Your task to perform on an android device: Add "razer huntsman" to the cart on ebay Image 0: 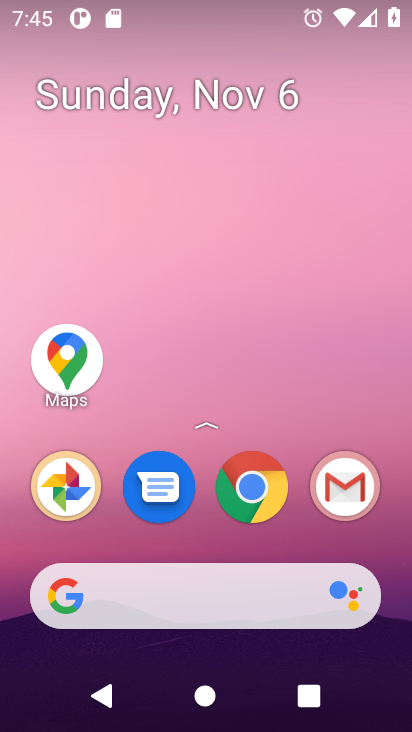
Step 0: click (236, 494)
Your task to perform on an android device: Add "razer huntsman" to the cart on ebay Image 1: 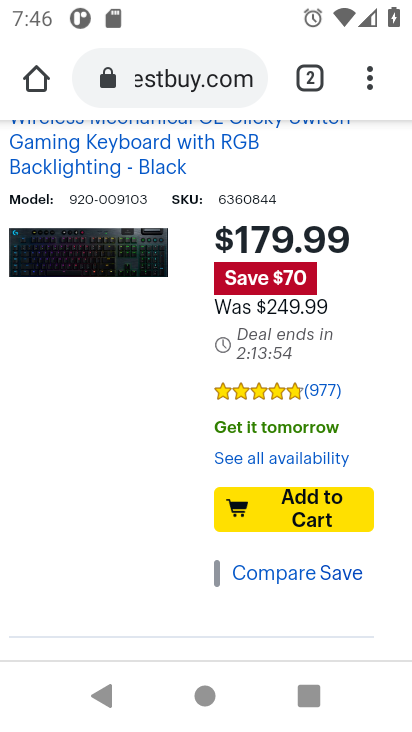
Step 1: click (177, 63)
Your task to perform on an android device: Add "razer huntsman" to the cart on ebay Image 2: 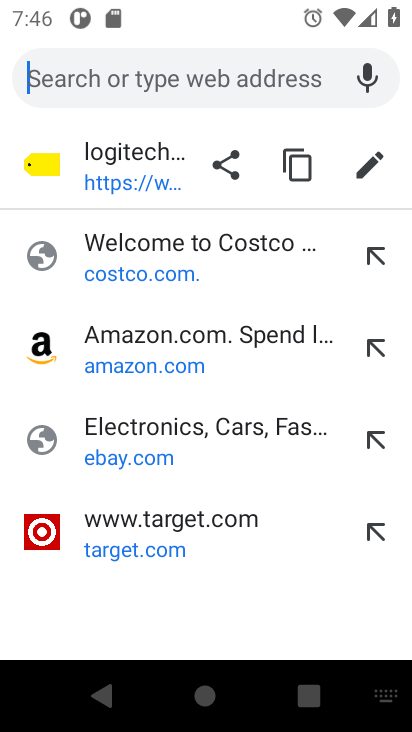
Step 2: type "ebay"
Your task to perform on an android device: Add "razer huntsman" to the cart on ebay Image 3: 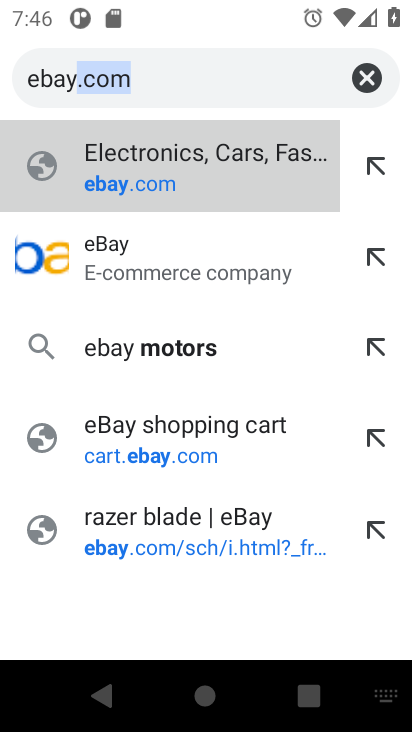
Step 3: click (154, 180)
Your task to perform on an android device: Add "razer huntsman" to the cart on ebay Image 4: 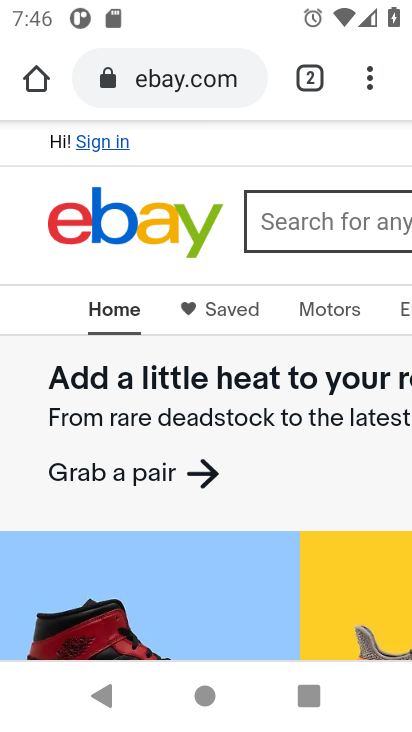
Step 4: click (284, 200)
Your task to perform on an android device: Add "razer huntsman" to the cart on ebay Image 5: 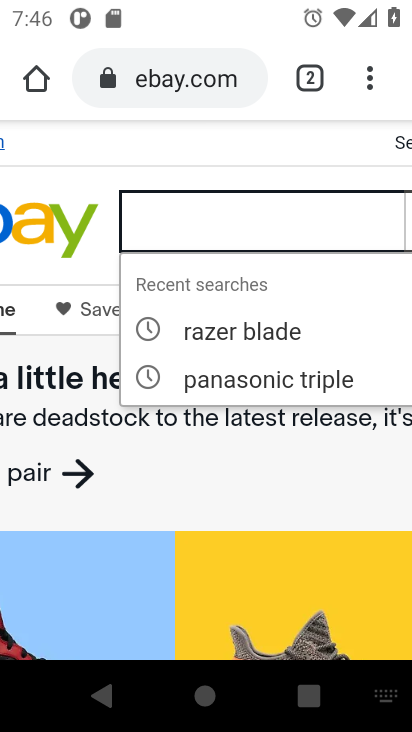
Step 5: type "razer huntsman"
Your task to perform on an android device: Add "razer huntsman" to the cart on ebay Image 6: 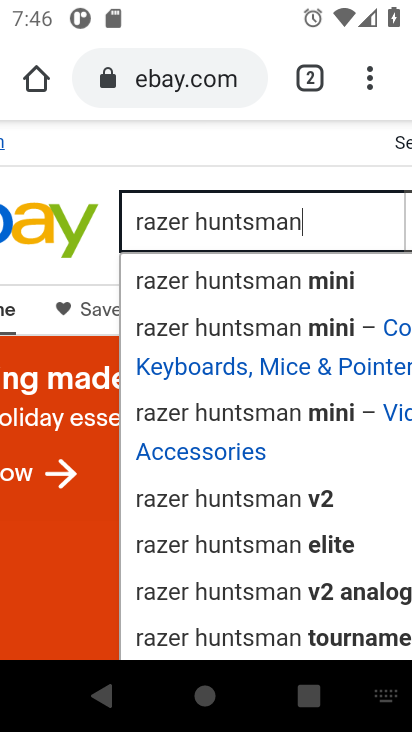
Step 6: drag from (338, 174) to (46, 175)
Your task to perform on an android device: Add "razer huntsman" to the cart on ebay Image 7: 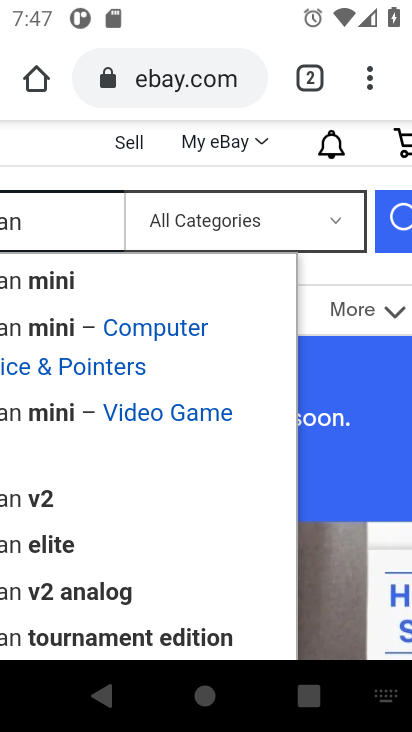
Step 7: click (399, 215)
Your task to perform on an android device: Add "razer huntsman" to the cart on ebay Image 8: 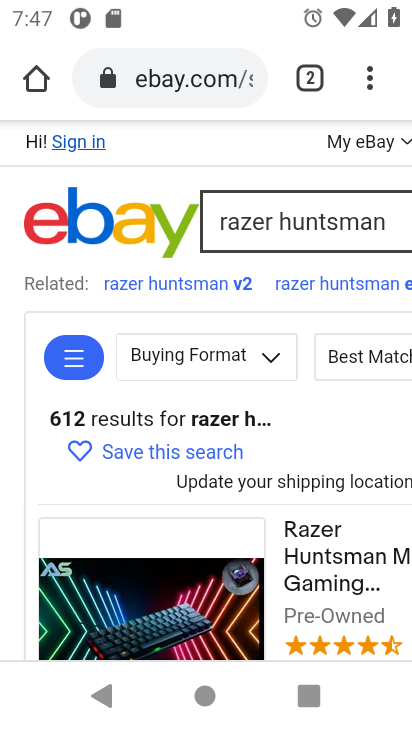
Step 8: drag from (331, 459) to (208, 159)
Your task to perform on an android device: Add "razer huntsman" to the cart on ebay Image 9: 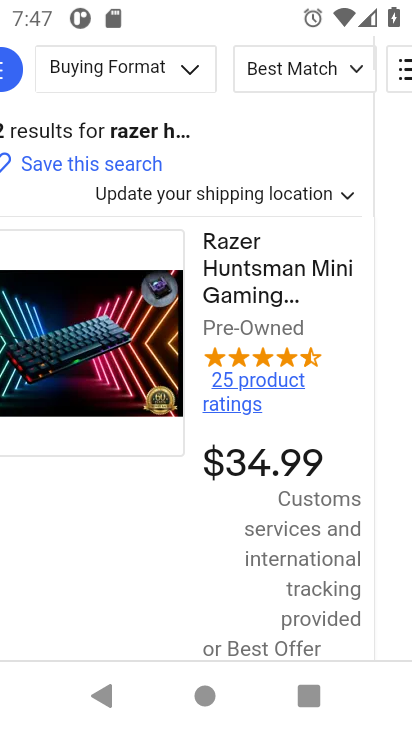
Step 9: drag from (332, 359) to (326, 100)
Your task to perform on an android device: Add "razer huntsman" to the cart on ebay Image 10: 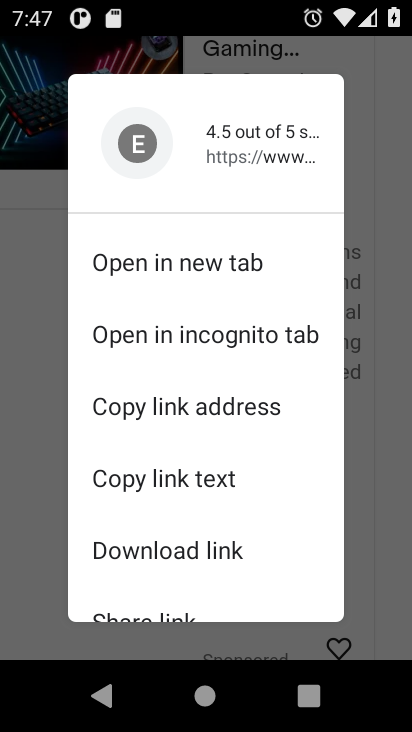
Step 10: click (11, 521)
Your task to perform on an android device: Add "razer huntsman" to the cart on ebay Image 11: 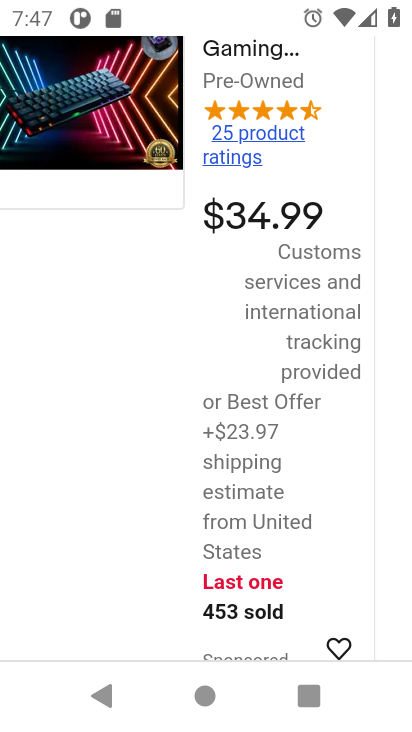
Step 11: drag from (53, 560) to (128, 226)
Your task to perform on an android device: Add "razer huntsman" to the cart on ebay Image 12: 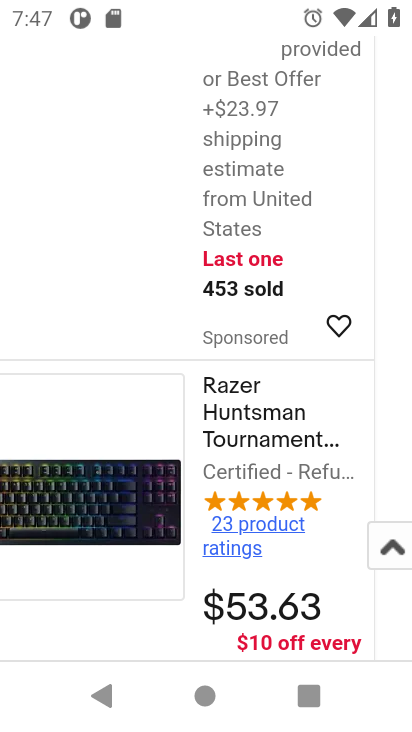
Step 12: click (255, 411)
Your task to perform on an android device: Add "razer huntsman" to the cart on ebay Image 13: 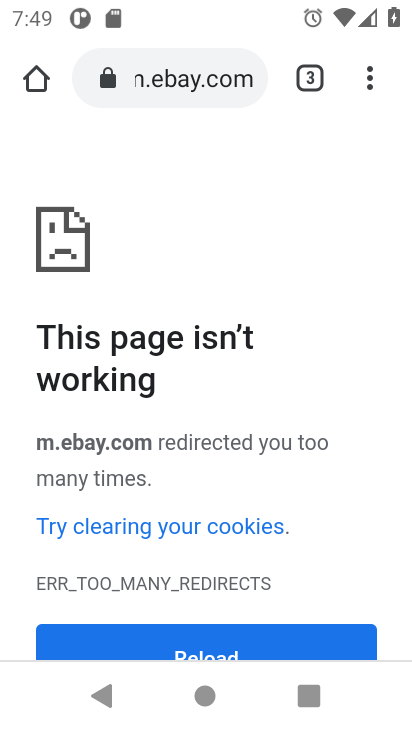
Step 13: task complete